Your task to perform on an android device: Open Yahoo.com Image 0: 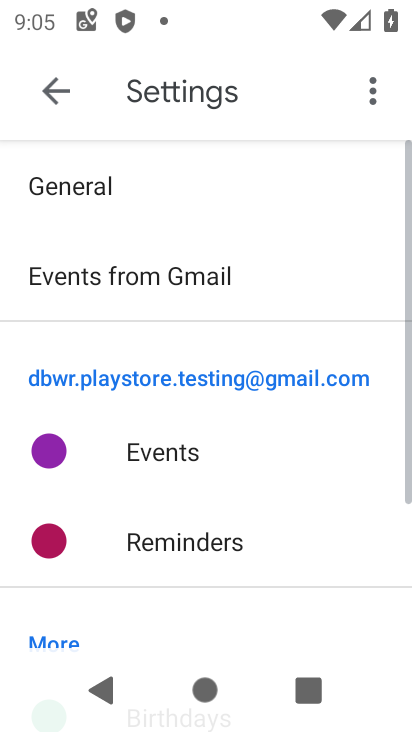
Step 0: press home button
Your task to perform on an android device: Open Yahoo.com Image 1: 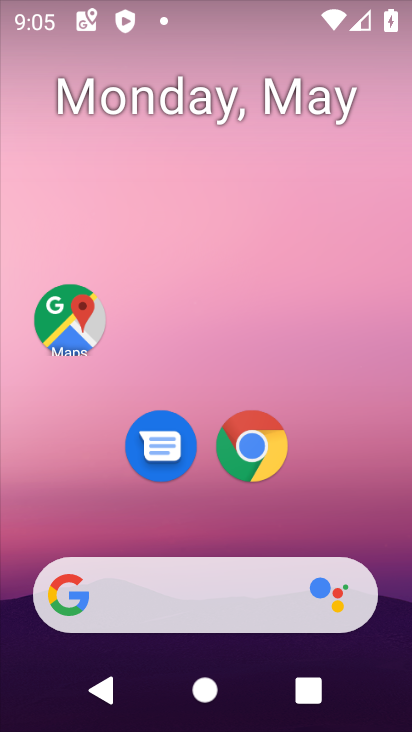
Step 1: drag from (206, 534) to (205, 33)
Your task to perform on an android device: Open Yahoo.com Image 2: 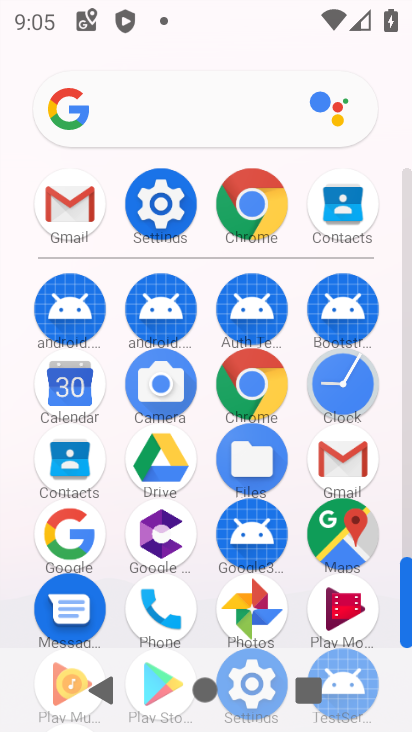
Step 2: click (250, 195)
Your task to perform on an android device: Open Yahoo.com Image 3: 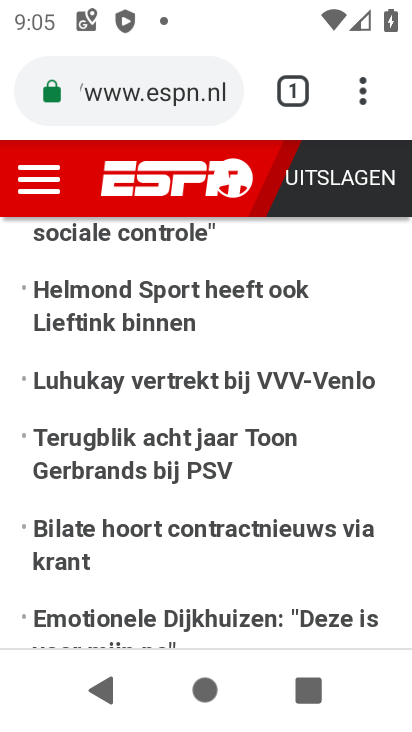
Step 3: click (289, 82)
Your task to perform on an android device: Open Yahoo.com Image 4: 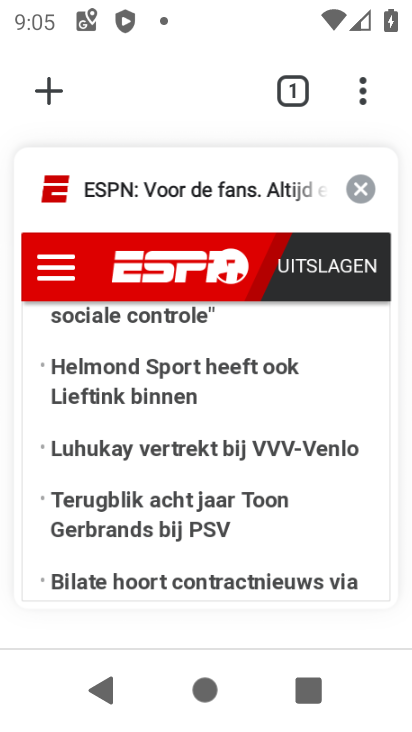
Step 4: click (363, 182)
Your task to perform on an android device: Open Yahoo.com Image 5: 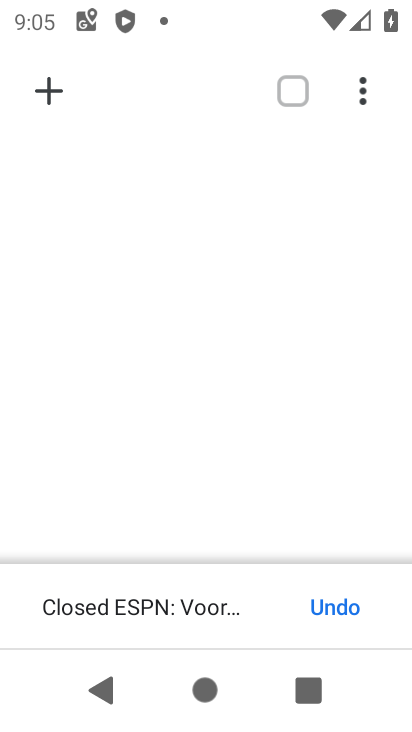
Step 5: click (51, 86)
Your task to perform on an android device: Open Yahoo.com Image 6: 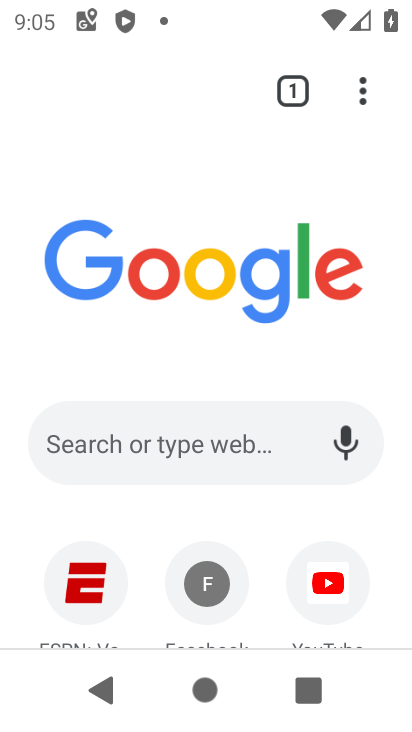
Step 6: click (125, 429)
Your task to perform on an android device: Open Yahoo.com Image 7: 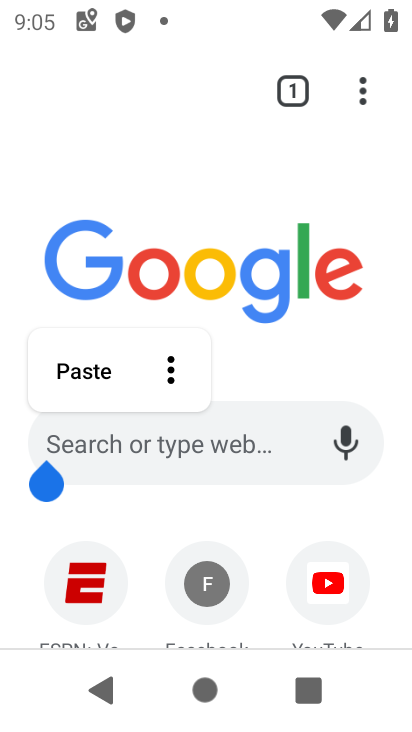
Step 7: click (158, 442)
Your task to perform on an android device: Open Yahoo.com Image 8: 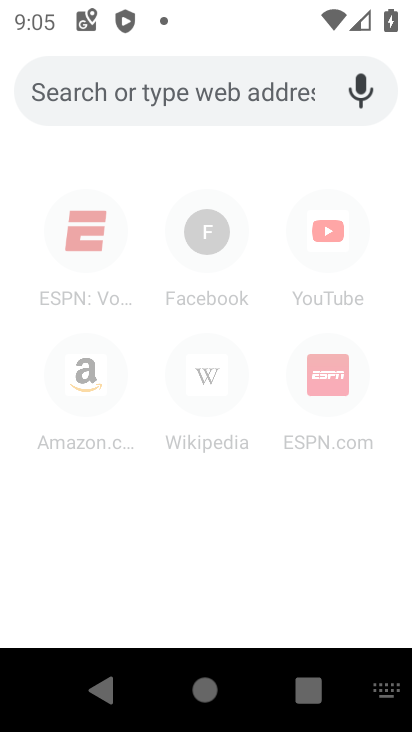
Step 8: type "yahoo.com"
Your task to perform on an android device: Open Yahoo.com Image 9: 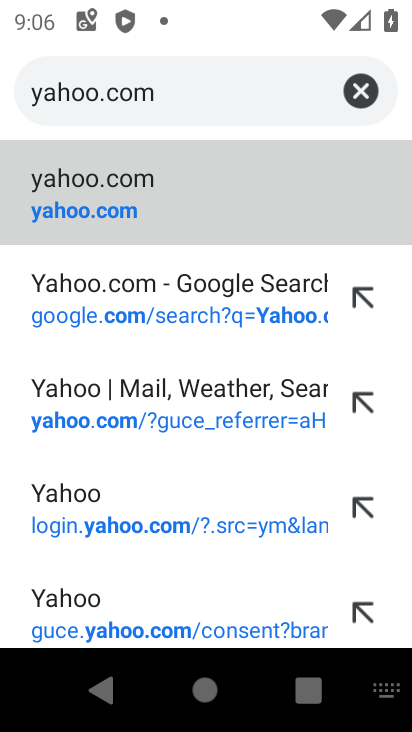
Step 9: click (145, 198)
Your task to perform on an android device: Open Yahoo.com Image 10: 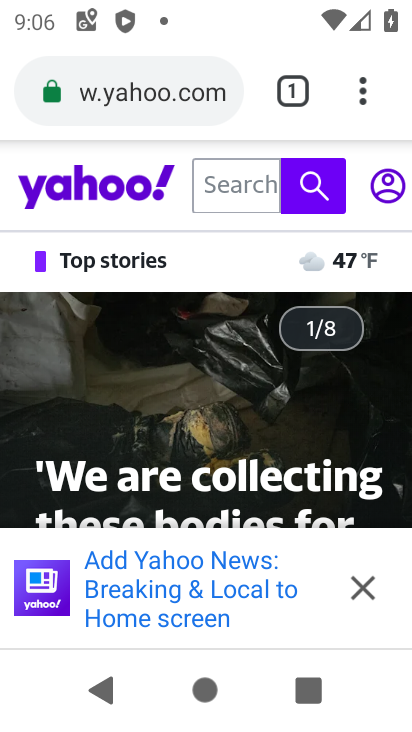
Step 10: click (362, 597)
Your task to perform on an android device: Open Yahoo.com Image 11: 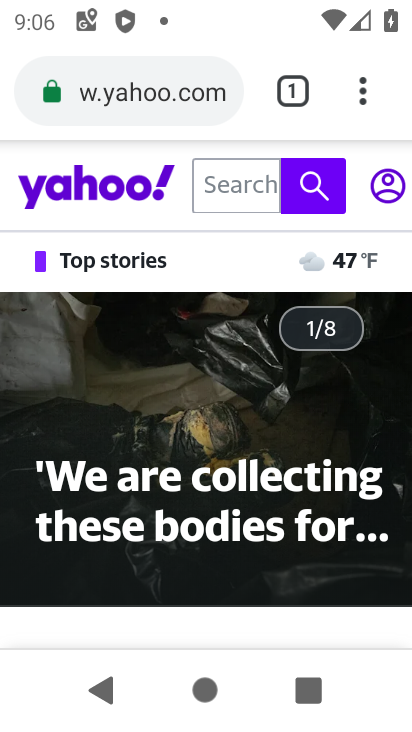
Step 11: task complete